Your task to perform on an android device: Open settings on Google Maps Image 0: 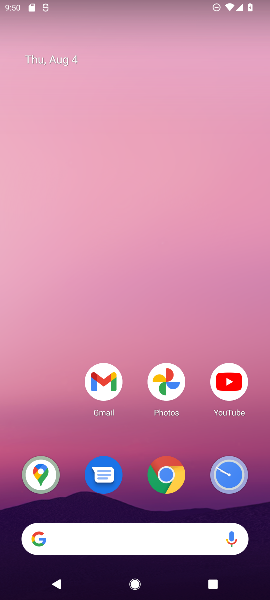
Step 0: drag from (127, 497) to (42, 238)
Your task to perform on an android device: Open settings on Google Maps Image 1: 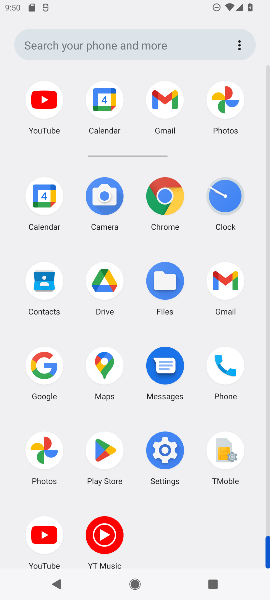
Step 1: click (104, 361)
Your task to perform on an android device: Open settings on Google Maps Image 2: 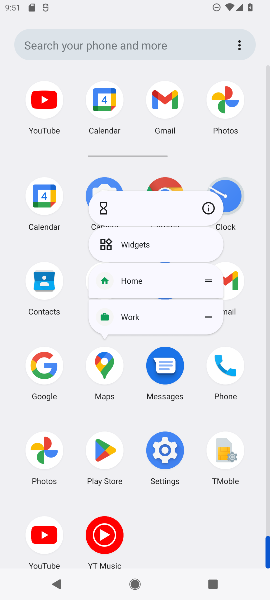
Step 2: click (204, 206)
Your task to perform on an android device: Open settings on Google Maps Image 3: 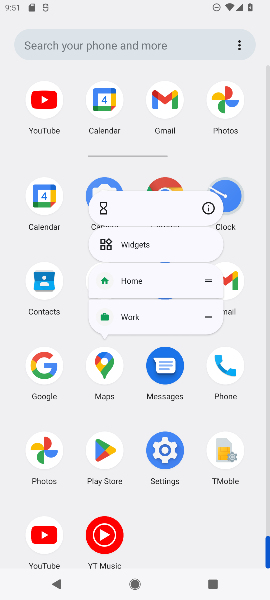
Step 3: click (209, 206)
Your task to perform on an android device: Open settings on Google Maps Image 4: 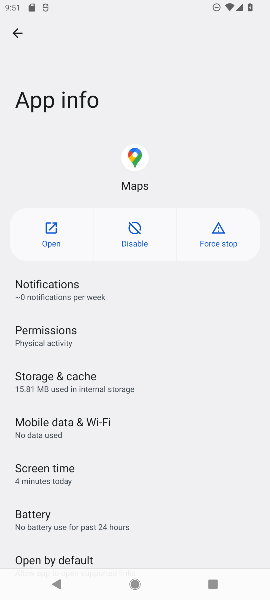
Step 4: click (62, 226)
Your task to perform on an android device: Open settings on Google Maps Image 5: 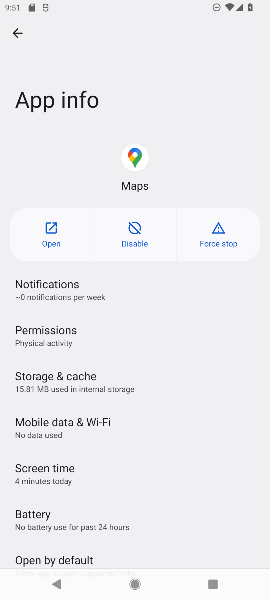
Step 5: click (62, 226)
Your task to perform on an android device: Open settings on Google Maps Image 6: 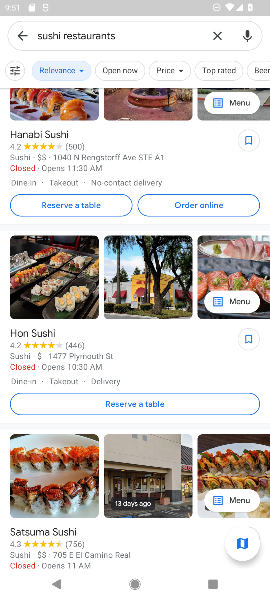
Step 6: drag from (145, 519) to (138, 301)
Your task to perform on an android device: Open settings on Google Maps Image 7: 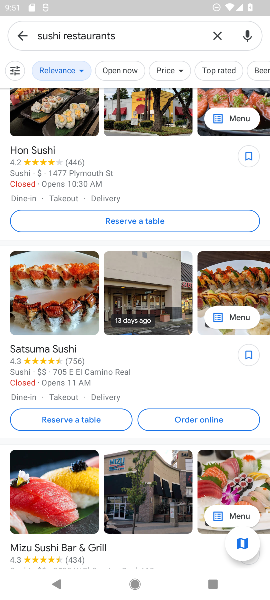
Step 7: drag from (164, 158) to (206, 595)
Your task to perform on an android device: Open settings on Google Maps Image 8: 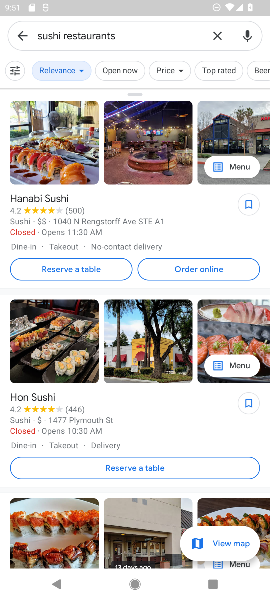
Step 8: click (21, 38)
Your task to perform on an android device: Open settings on Google Maps Image 9: 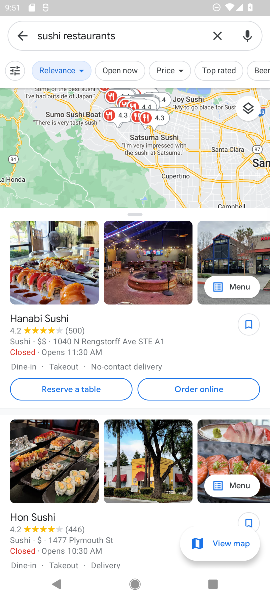
Step 9: click (20, 36)
Your task to perform on an android device: Open settings on Google Maps Image 10: 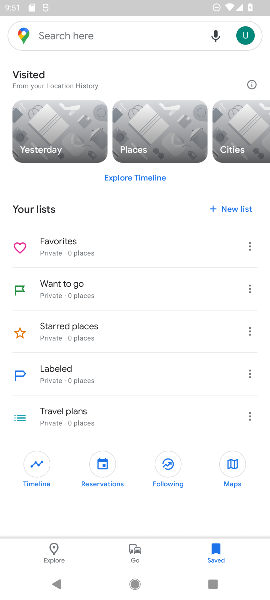
Step 10: click (242, 35)
Your task to perform on an android device: Open settings on Google Maps Image 11: 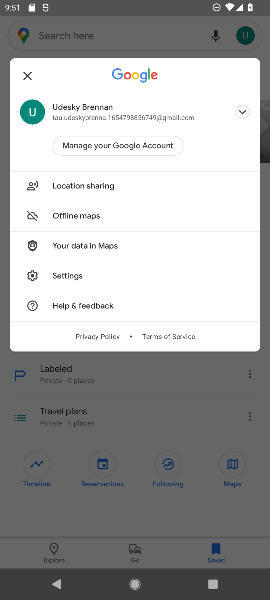
Step 11: click (73, 277)
Your task to perform on an android device: Open settings on Google Maps Image 12: 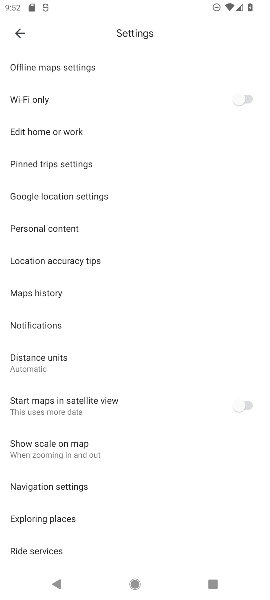
Step 12: task complete